Your task to perform on an android device: turn pop-ups on in chrome Image 0: 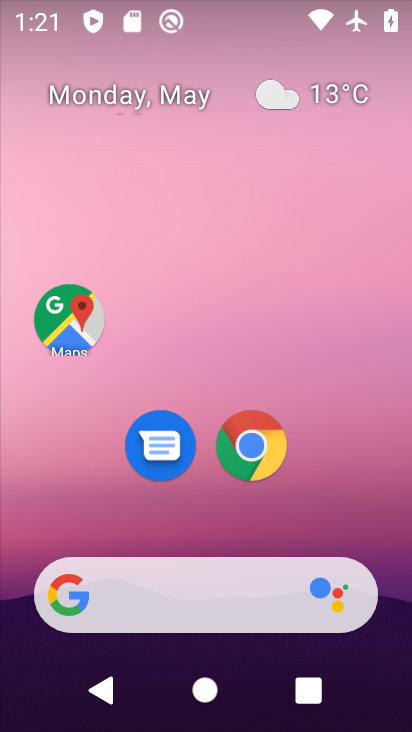
Step 0: drag from (402, 623) to (372, 264)
Your task to perform on an android device: turn pop-ups on in chrome Image 1: 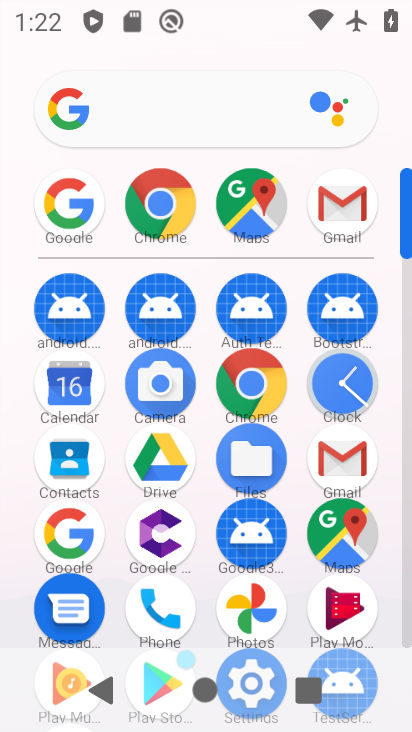
Step 1: click (257, 380)
Your task to perform on an android device: turn pop-ups on in chrome Image 2: 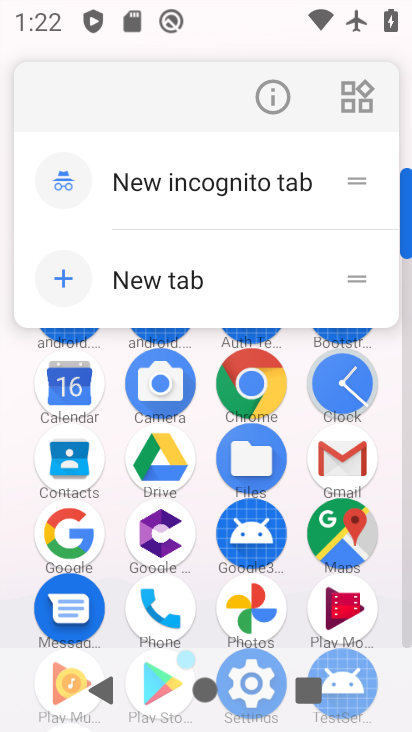
Step 2: click (247, 385)
Your task to perform on an android device: turn pop-ups on in chrome Image 3: 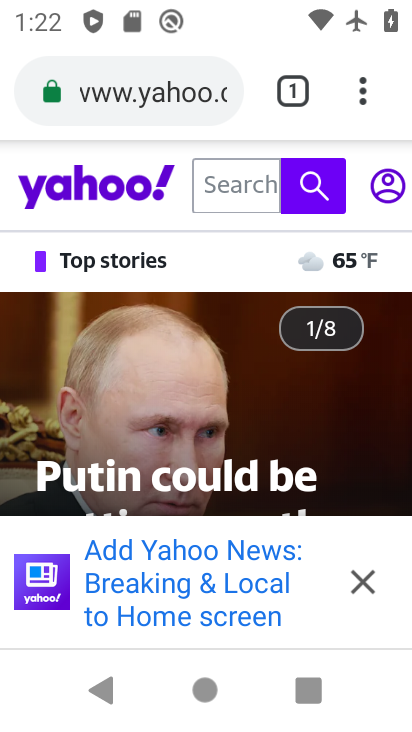
Step 3: press back button
Your task to perform on an android device: turn pop-ups on in chrome Image 4: 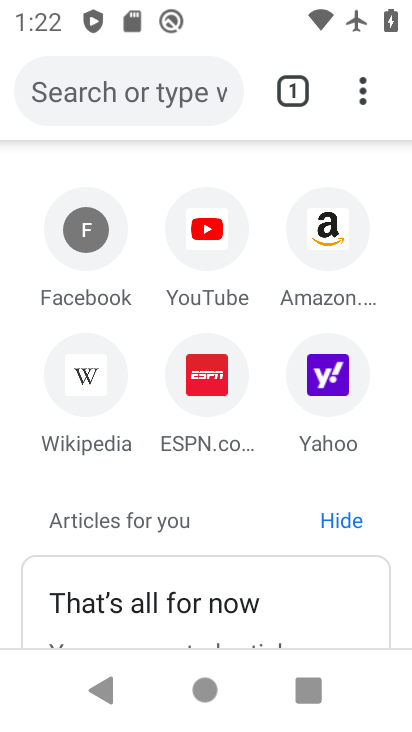
Step 4: click (362, 85)
Your task to perform on an android device: turn pop-ups on in chrome Image 5: 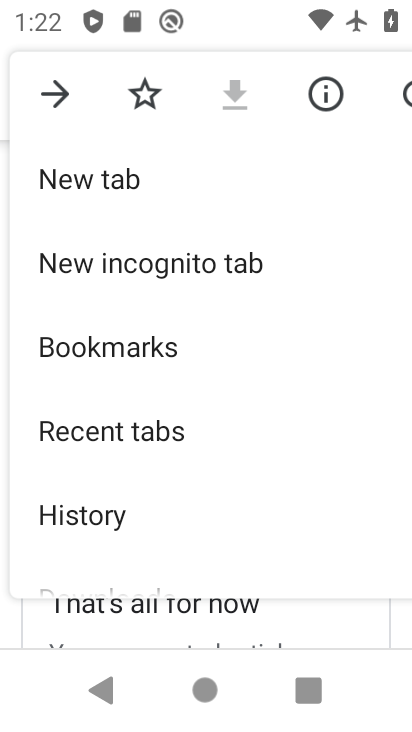
Step 5: drag from (176, 521) to (209, 257)
Your task to perform on an android device: turn pop-ups on in chrome Image 6: 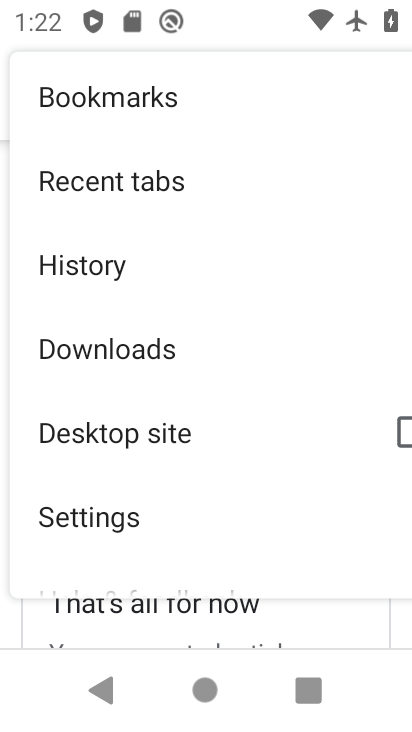
Step 6: click (132, 519)
Your task to perform on an android device: turn pop-ups on in chrome Image 7: 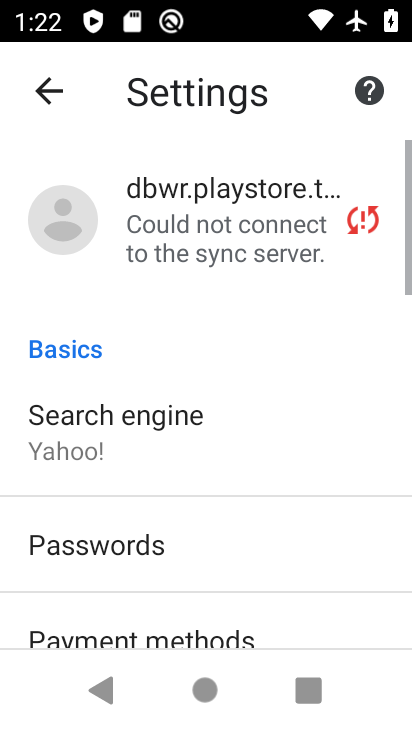
Step 7: drag from (149, 570) to (156, 314)
Your task to perform on an android device: turn pop-ups on in chrome Image 8: 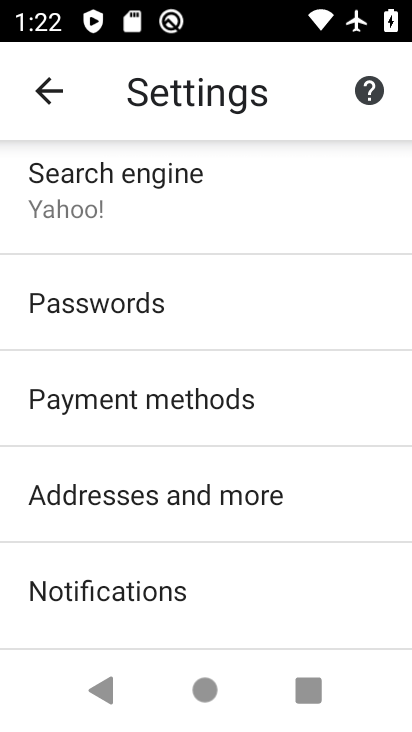
Step 8: drag from (211, 588) to (185, 330)
Your task to perform on an android device: turn pop-ups on in chrome Image 9: 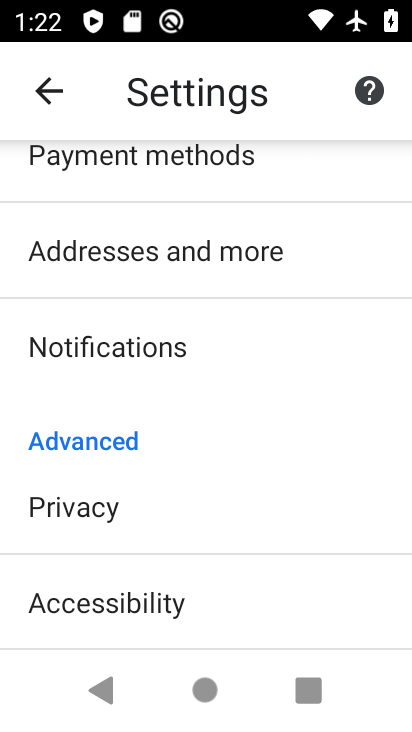
Step 9: drag from (207, 618) to (209, 310)
Your task to perform on an android device: turn pop-ups on in chrome Image 10: 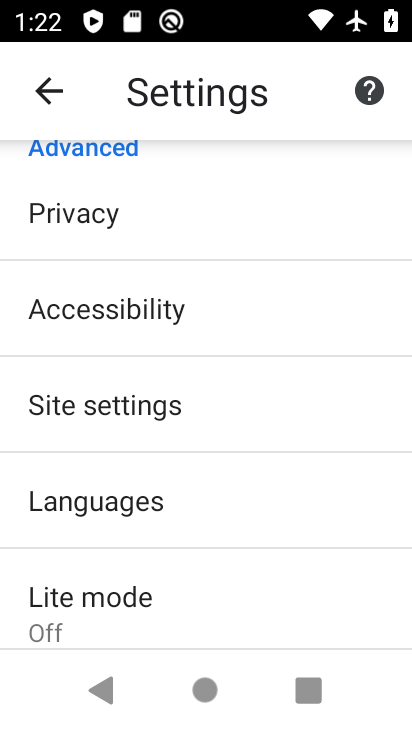
Step 10: click (219, 412)
Your task to perform on an android device: turn pop-ups on in chrome Image 11: 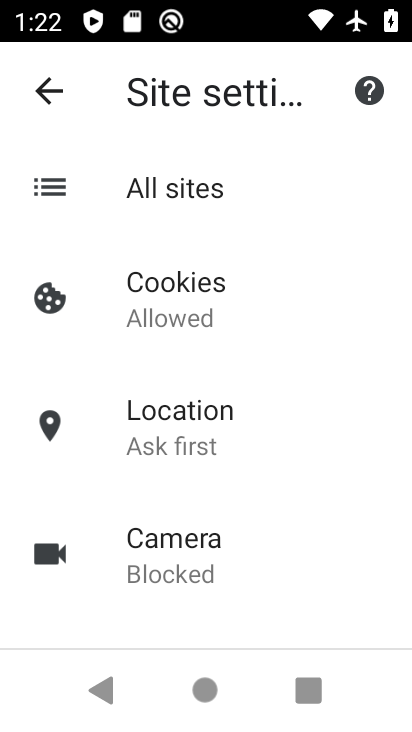
Step 11: drag from (196, 577) to (171, 223)
Your task to perform on an android device: turn pop-ups on in chrome Image 12: 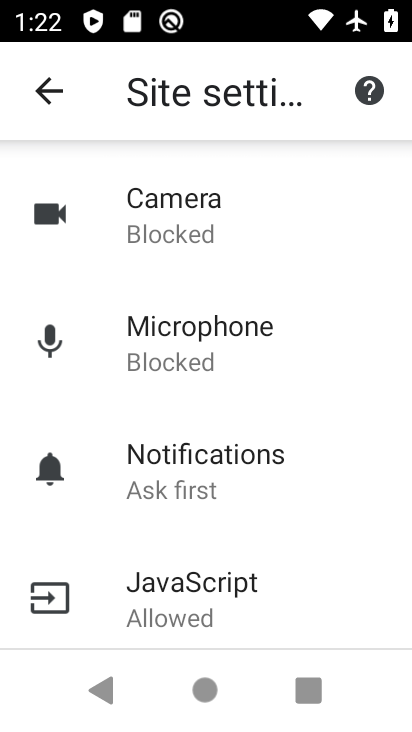
Step 12: drag from (231, 604) to (204, 329)
Your task to perform on an android device: turn pop-ups on in chrome Image 13: 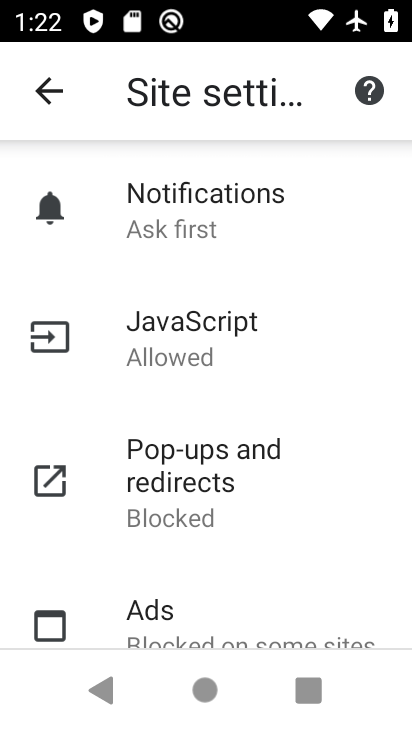
Step 13: click (224, 482)
Your task to perform on an android device: turn pop-ups on in chrome Image 14: 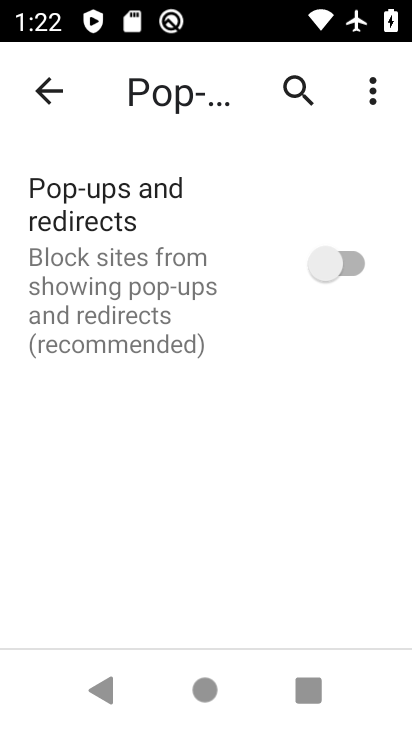
Step 14: click (357, 273)
Your task to perform on an android device: turn pop-ups on in chrome Image 15: 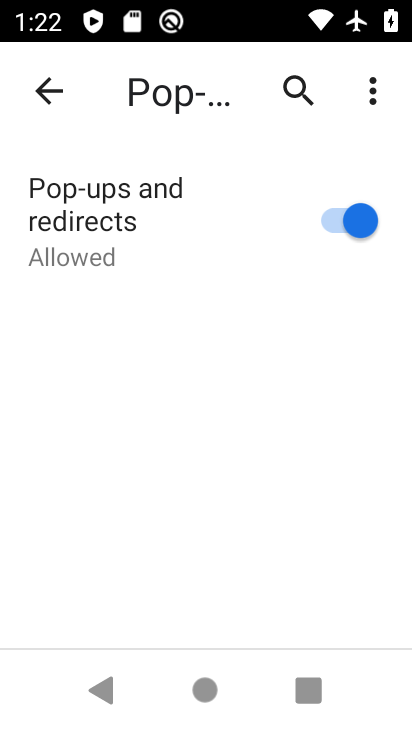
Step 15: task complete